Your task to perform on an android device: Open ESPN.com Image 0: 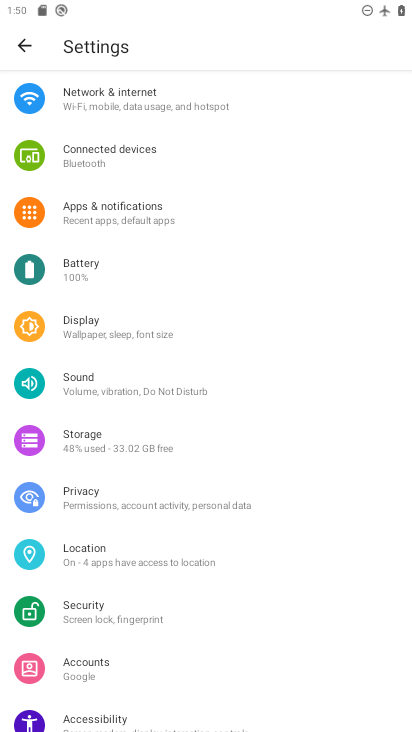
Step 0: press home button
Your task to perform on an android device: Open ESPN.com Image 1: 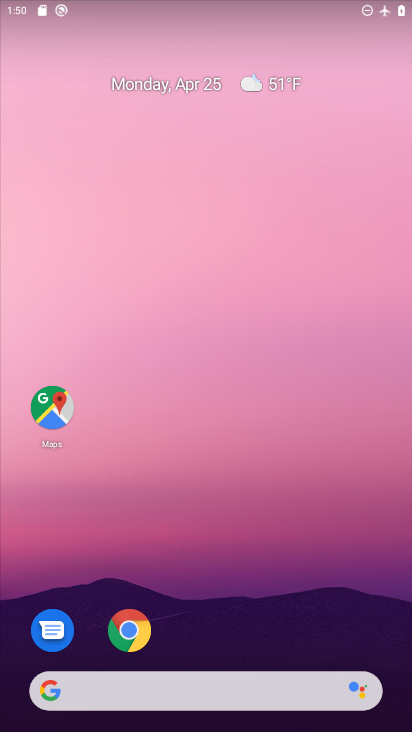
Step 1: drag from (292, 522) to (298, 61)
Your task to perform on an android device: Open ESPN.com Image 2: 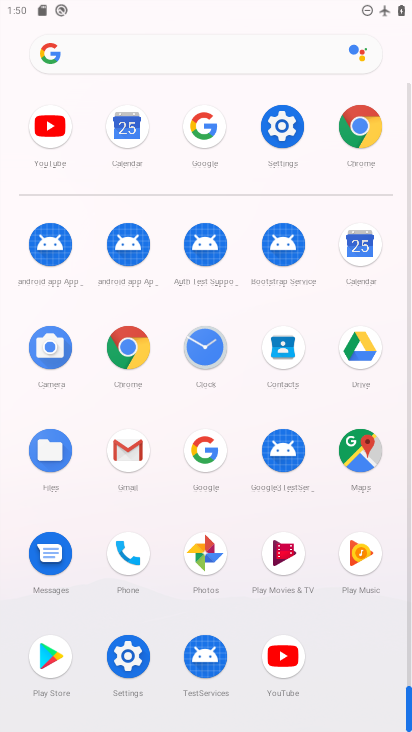
Step 2: click (353, 125)
Your task to perform on an android device: Open ESPN.com Image 3: 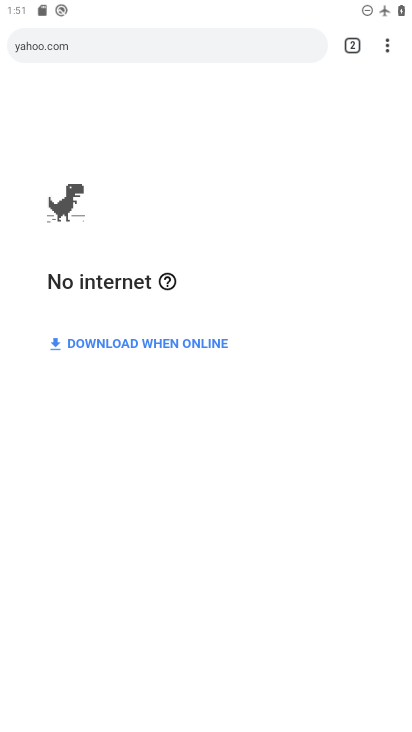
Step 3: click (106, 50)
Your task to perform on an android device: Open ESPN.com Image 4: 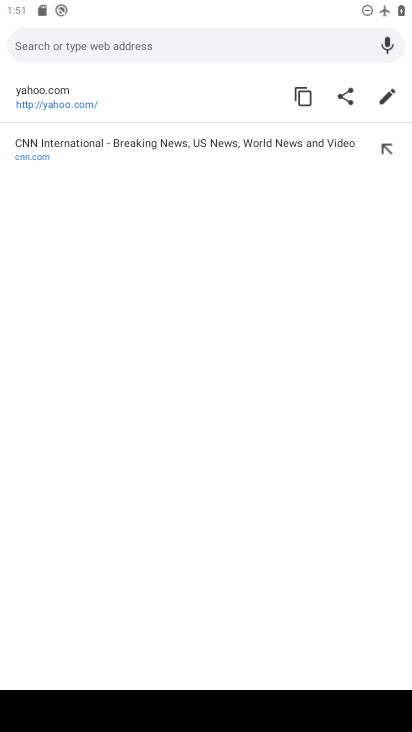
Step 4: task complete